Your task to perform on an android device: Is it going to rain tomorrow? Image 0: 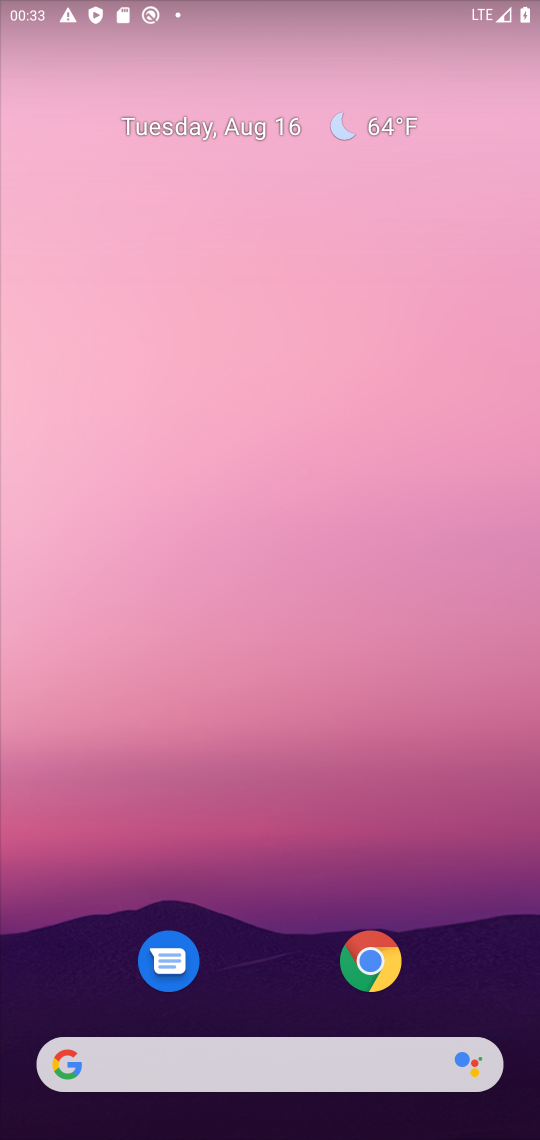
Step 0: press home button
Your task to perform on an android device: Is it going to rain tomorrow? Image 1: 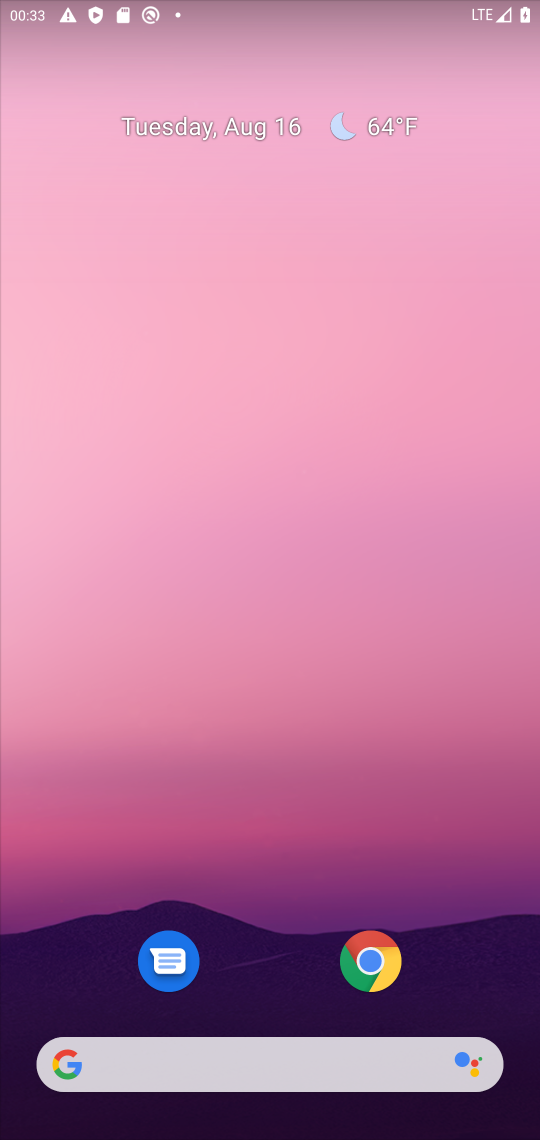
Step 1: drag from (196, 285) to (209, 63)
Your task to perform on an android device: Is it going to rain tomorrow? Image 2: 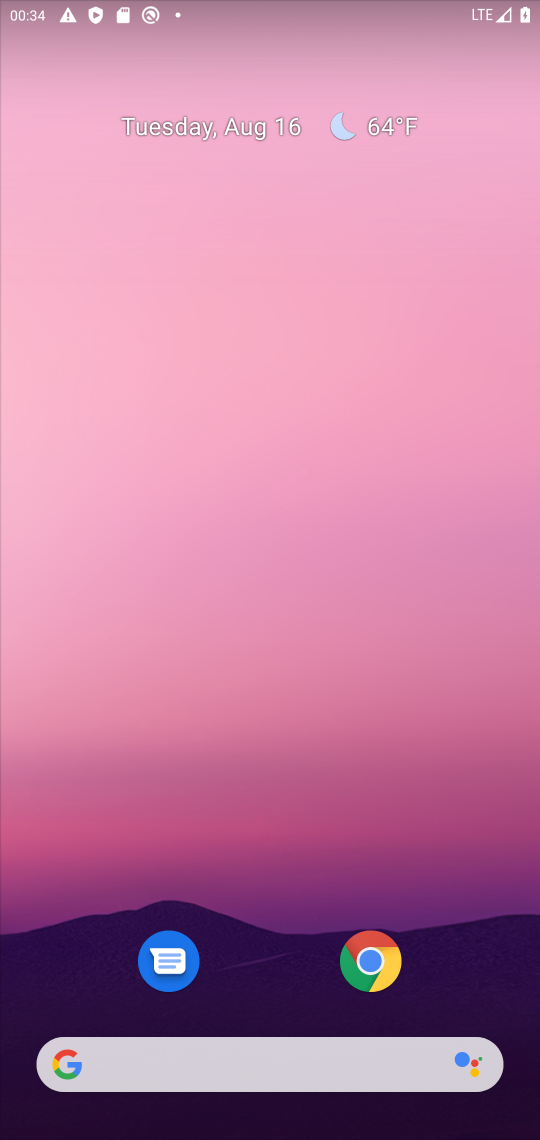
Step 2: drag from (323, 984) to (195, 2)
Your task to perform on an android device: Is it going to rain tomorrow? Image 3: 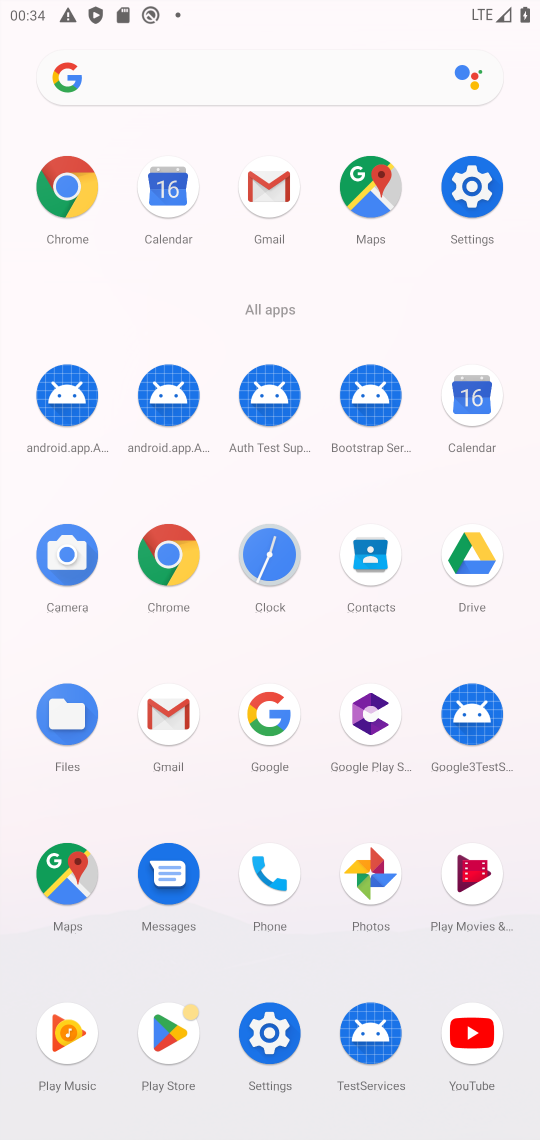
Step 3: click (71, 1129)
Your task to perform on an android device: Is it going to rain tomorrow? Image 4: 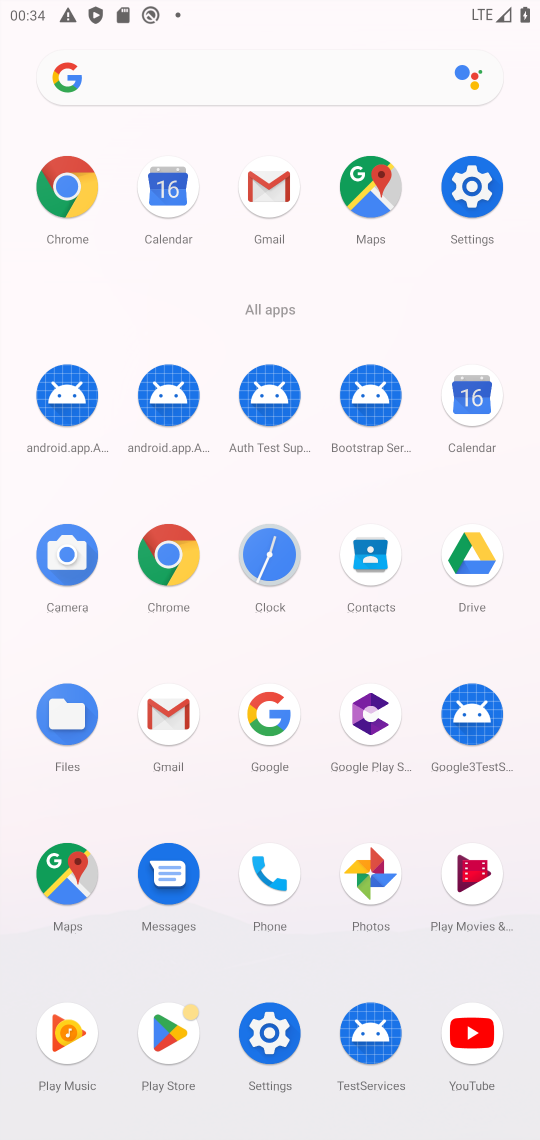
Step 4: click (160, 591)
Your task to perform on an android device: Is it going to rain tomorrow? Image 5: 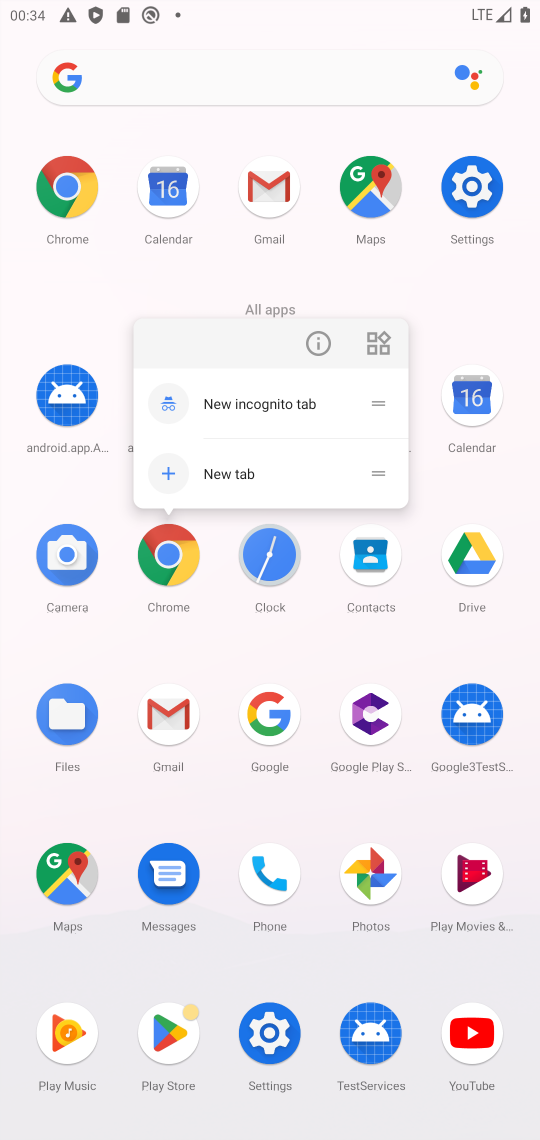
Step 5: click (168, 567)
Your task to perform on an android device: Is it going to rain tomorrow? Image 6: 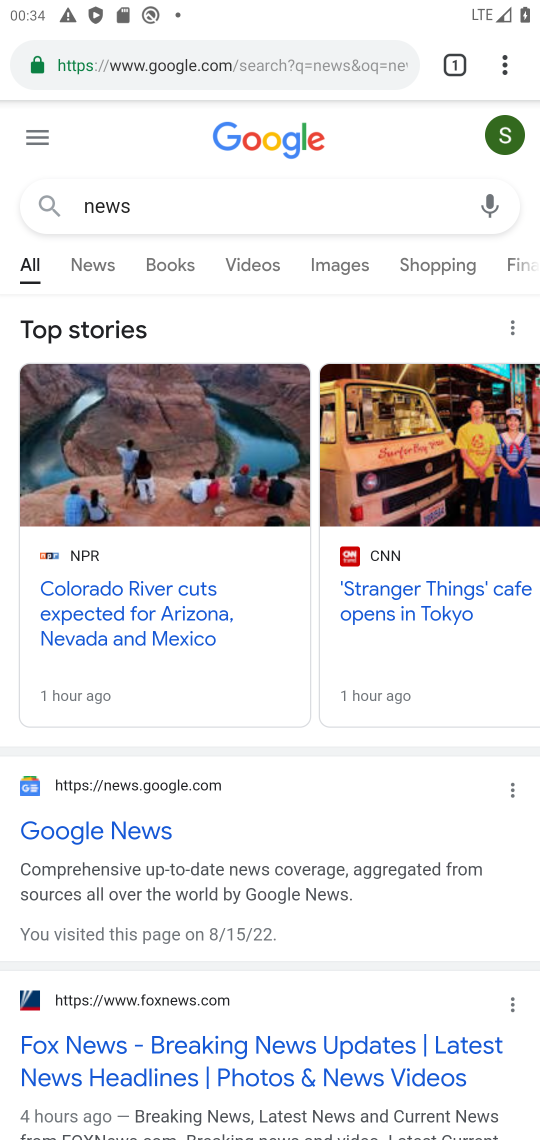
Step 6: click (295, 72)
Your task to perform on an android device: Is it going to rain tomorrow? Image 7: 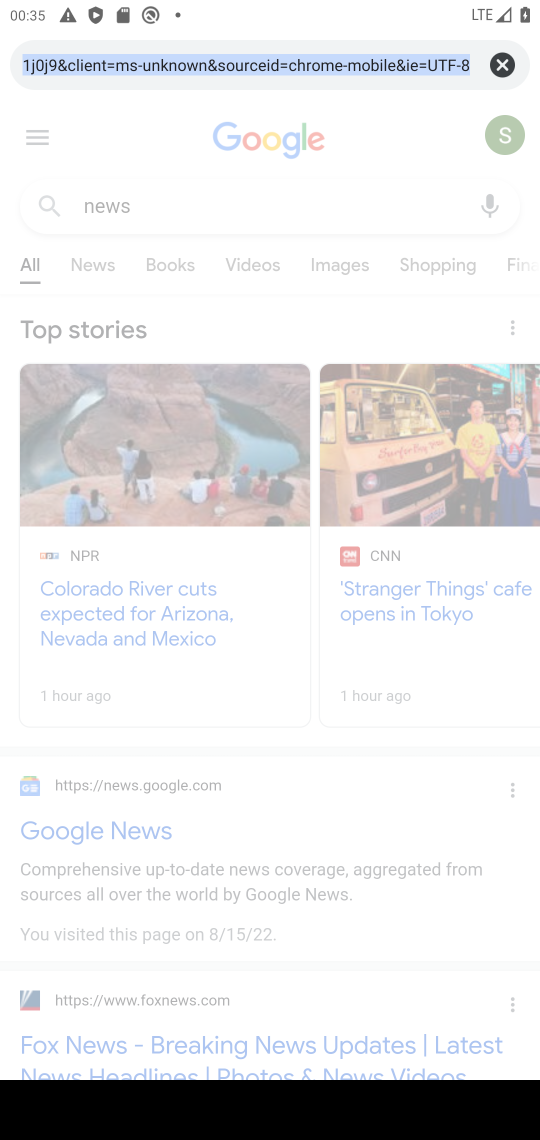
Step 7: type "Is it going to rain tomorrow?"
Your task to perform on an android device: Is it going to rain tomorrow? Image 8: 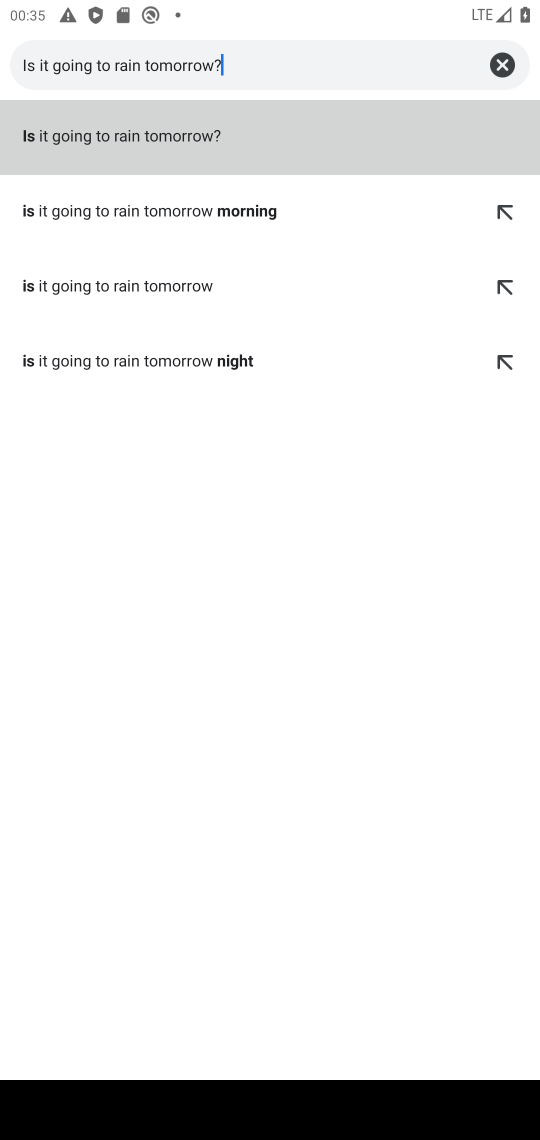
Step 8: type ""
Your task to perform on an android device: Is it going to rain tomorrow? Image 9: 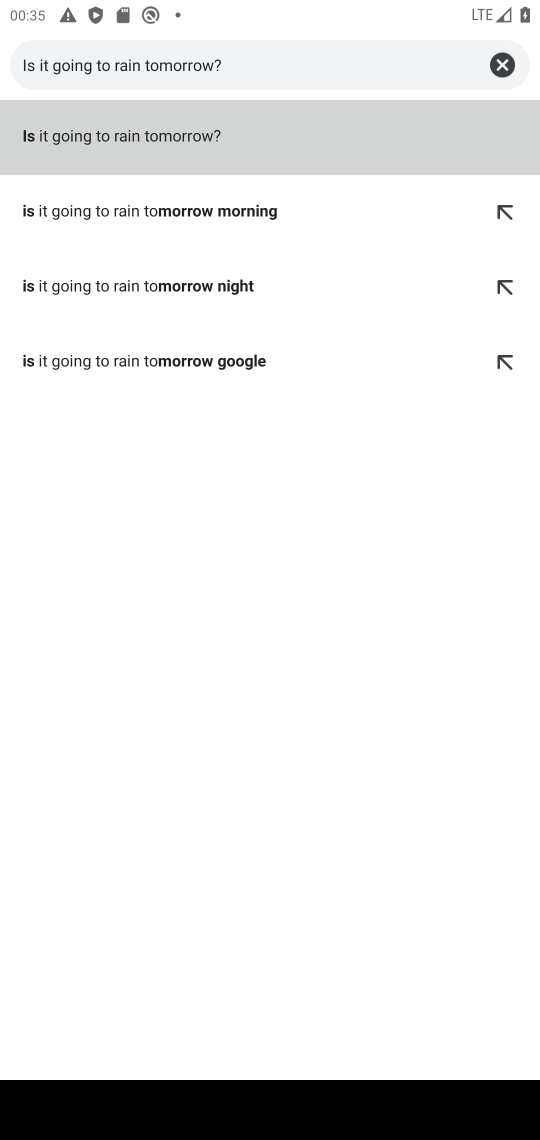
Step 9: click (111, 142)
Your task to perform on an android device: Is it going to rain tomorrow? Image 10: 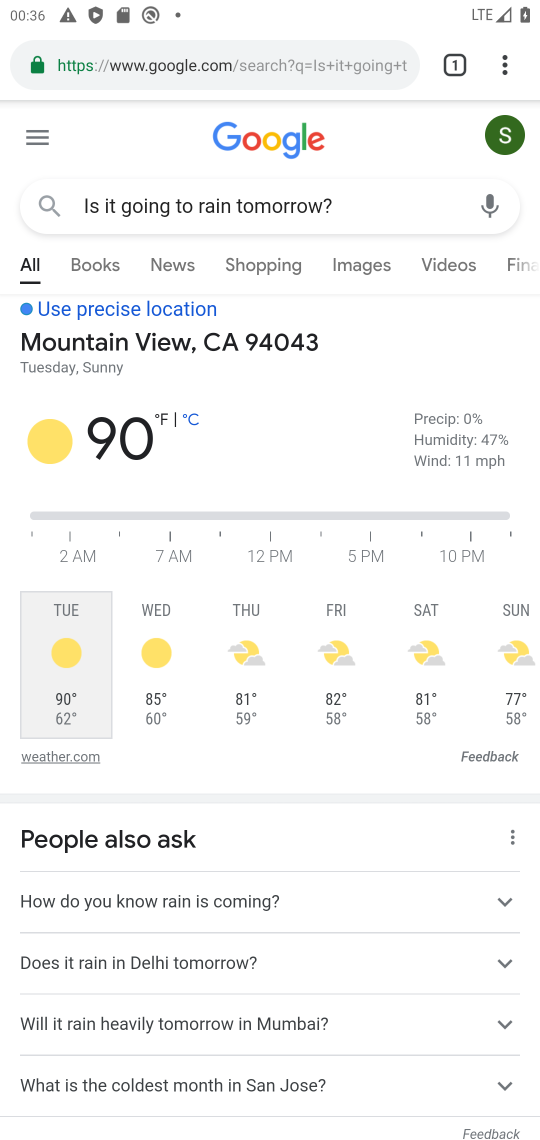
Step 10: click (348, 81)
Your task to perform on an android device: Is it going to rain tomorrow? Image 11: 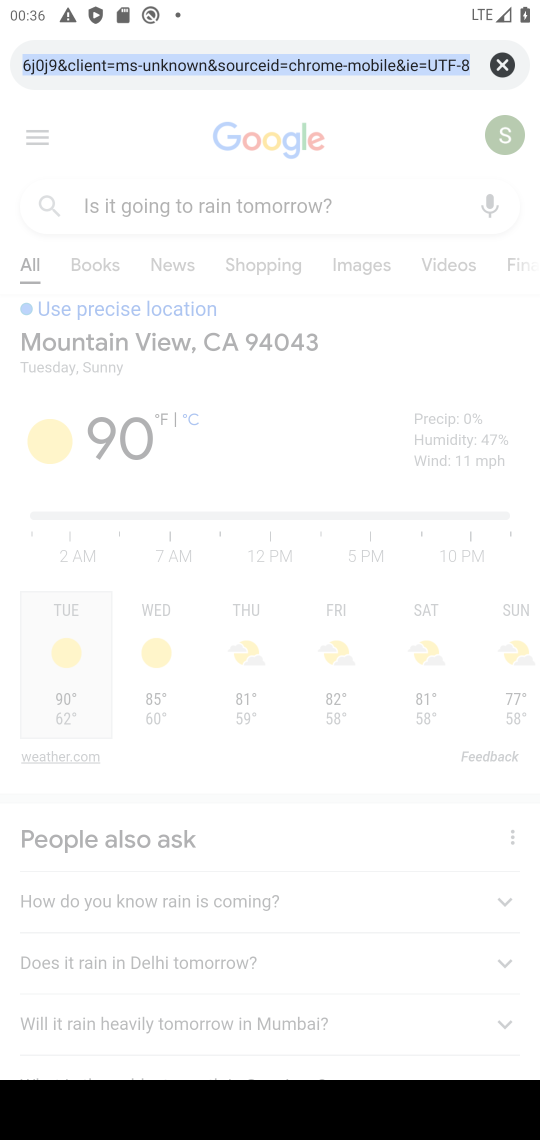
Step 11: type " Is it going to rain tomorrow?"
Your task to perform on an android device: Is it going to rain tomorrow? Image 12: 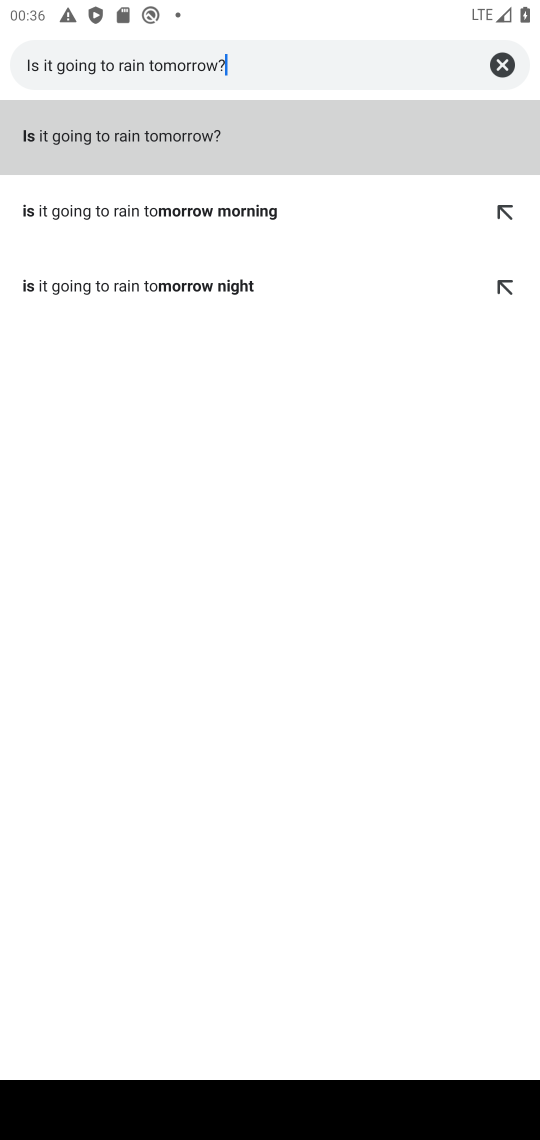
Step 12: task complete